Your task to perform on an android device: change alarm snooze length Image 0: 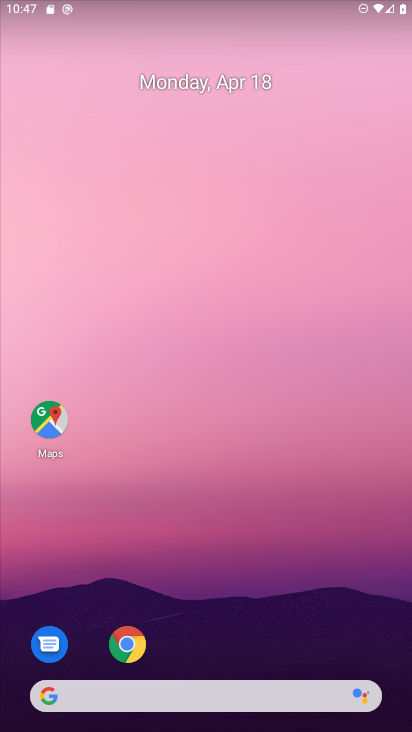
Step 0: drag from (201, 458) to (231, 1)
Your task to perform on an android device: change alarm snooze length Image 1: 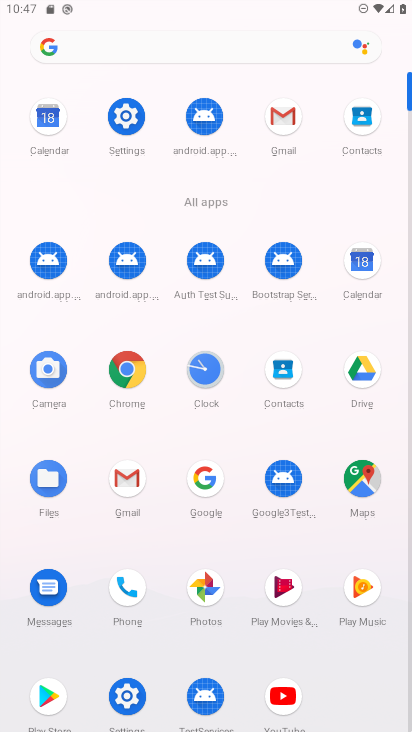
Step 1: click (205, 382)
Your task to perform on an android device: change alarm snooze length Image 2: 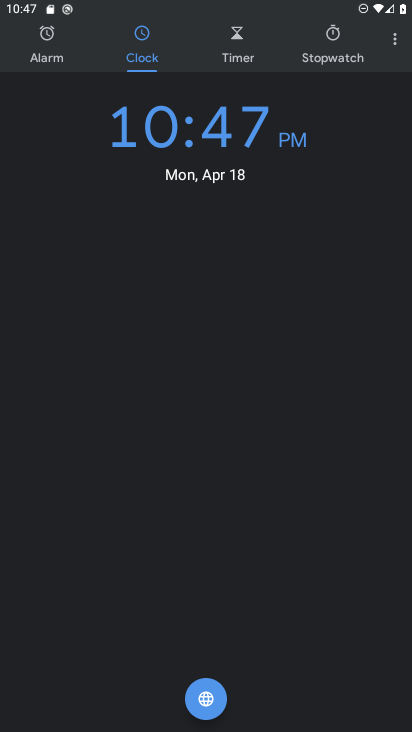
Step 2: click (395, 40)
Your task to perform on an android device: change alarm snooze length Image 3: 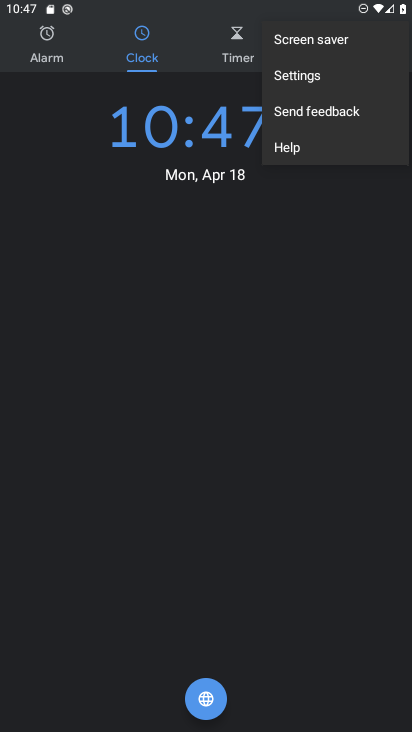
Step 3: click (322, 89)
Your task to perform on an android device: change alarm snooze length Image 4: 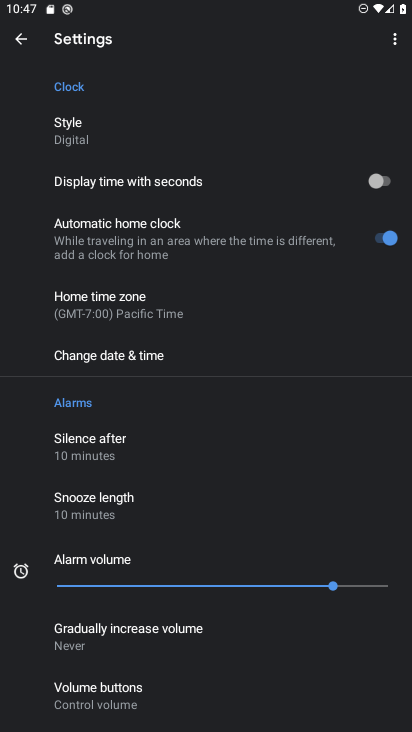
Step 4: click (120, 503)
Your task to perform on an android device: change alarm snooze length Image 5: 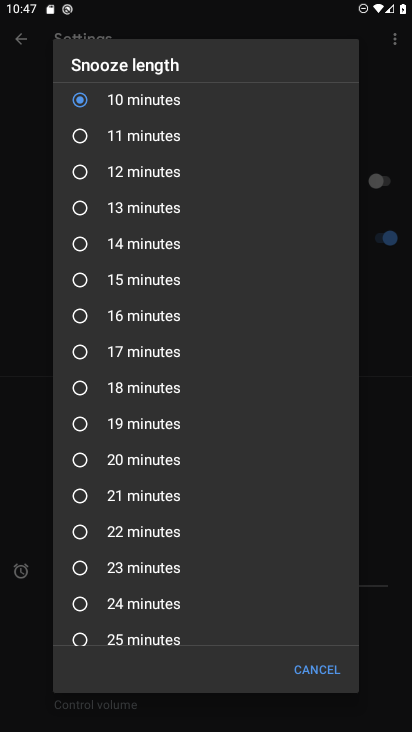
Step 5: click (84, 282)
Your task to perform on an android device: change alarm snooze length Image 6: 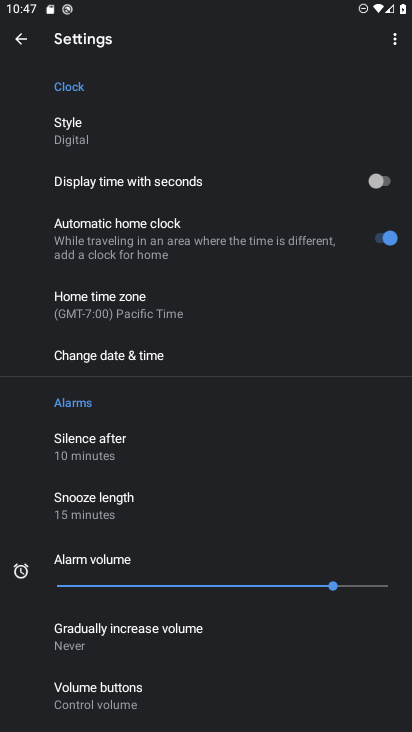
Step 6: task complete